Your task to perform on an android device: Go to Google Image 0: 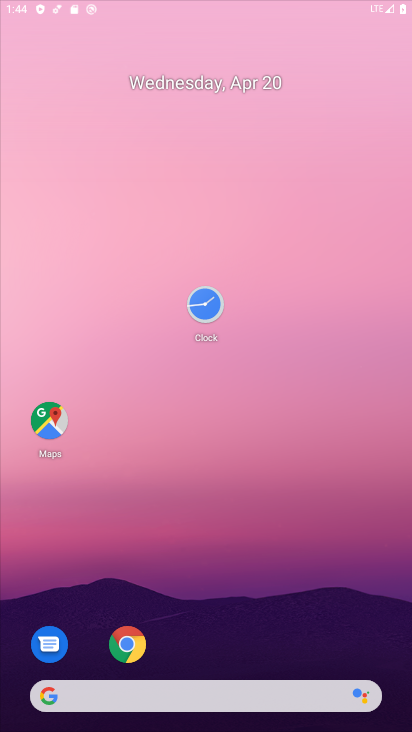
Step 0: drag from (298, 663) to (247, 38)
Your task to perform on an android device: Go to Google Image 1: 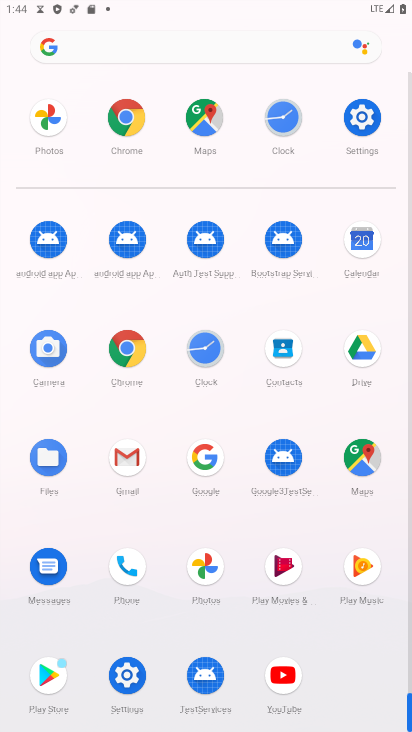
Step 1: click (124, 353)
Your task to perform on an android device: Go to Google Image 2: 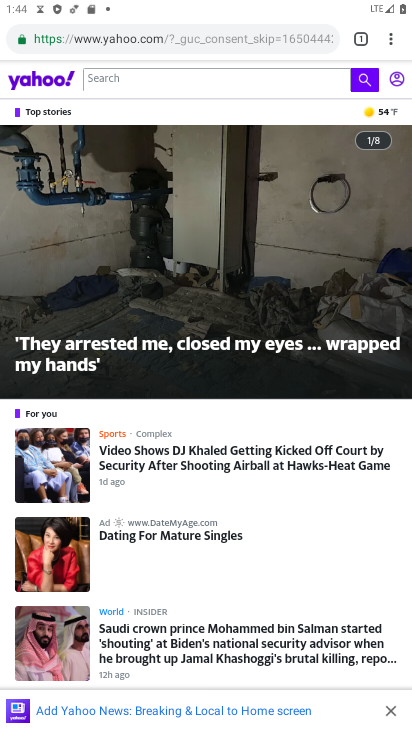
Step 2: click (390, 39)
Your task to perform on an android device: Go to Google Image 3: 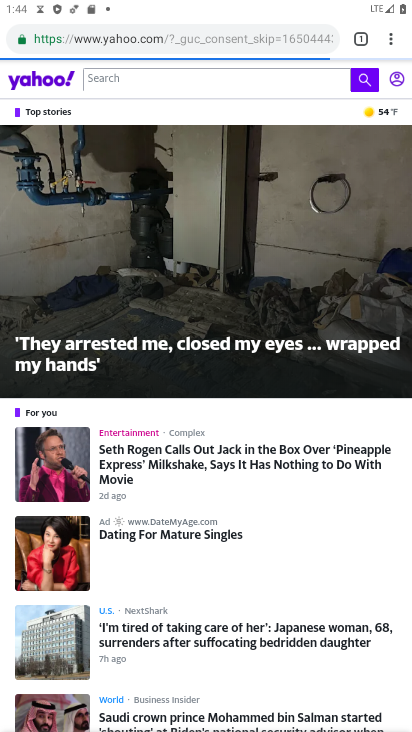
Step 3: click (381, 41)
Your task to perform on an android device: Go to Google Image 4: 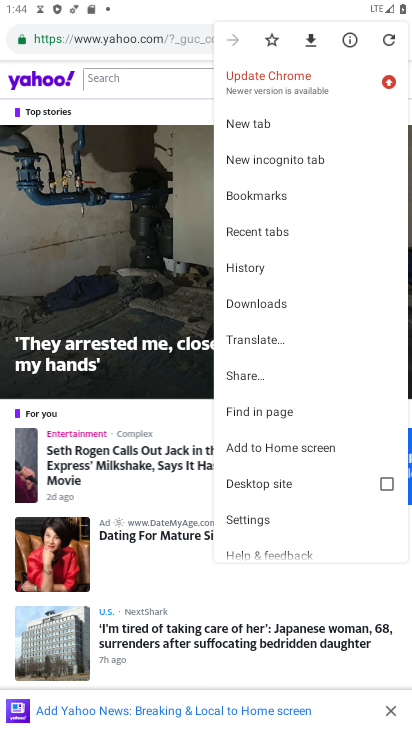
Step 4: click (261, 119)
Your task to perform on an android device: Go to Google Image 5: 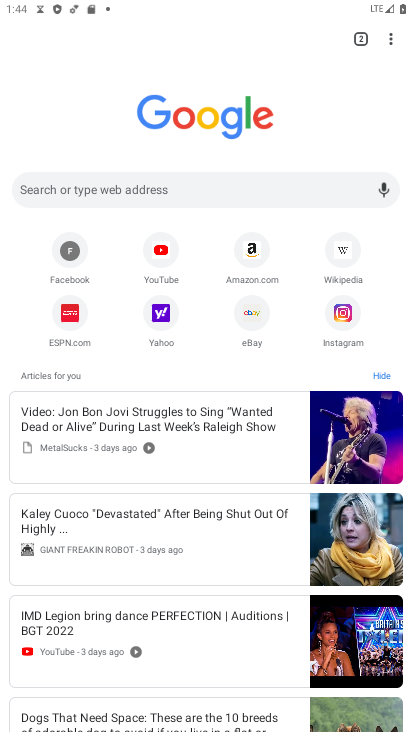
Step 5: task complete